Your task to perform on an android device: check android version Image 0: 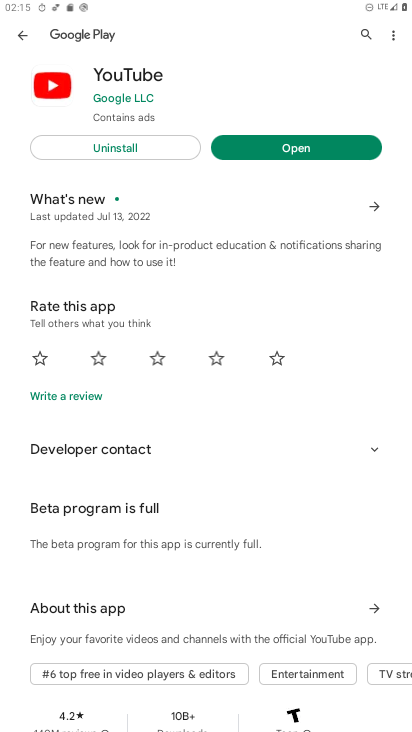
Step 0: press home button
Your task to perform on an android device: check android version Image 1: 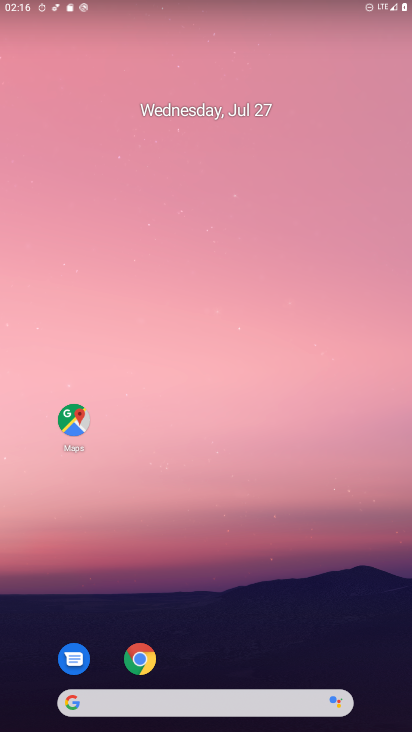
Step 1: drag from (241, 595) to (153, 68)
Your task to perform on an android device: check android version Image 2: 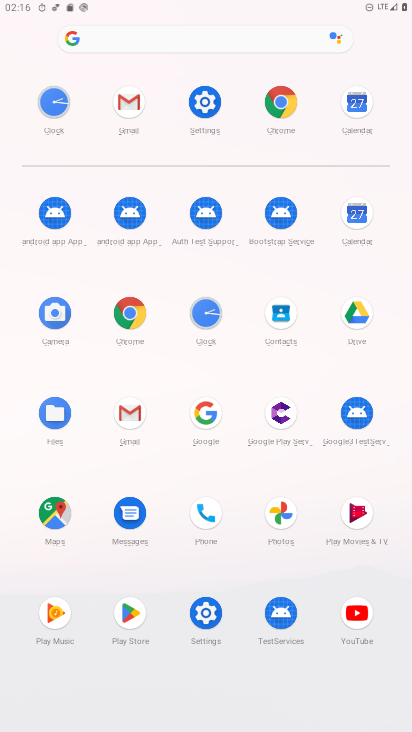
Step 2: click (204, 95)
Your task to perform on an android device: check android version Image 3: 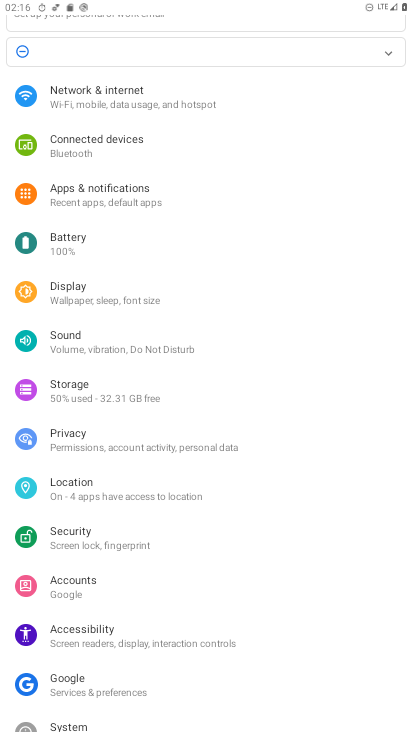
Step 3: drag from (332, 563) to (210, 1)
Your task to perform on an android device: check android version Image 4: 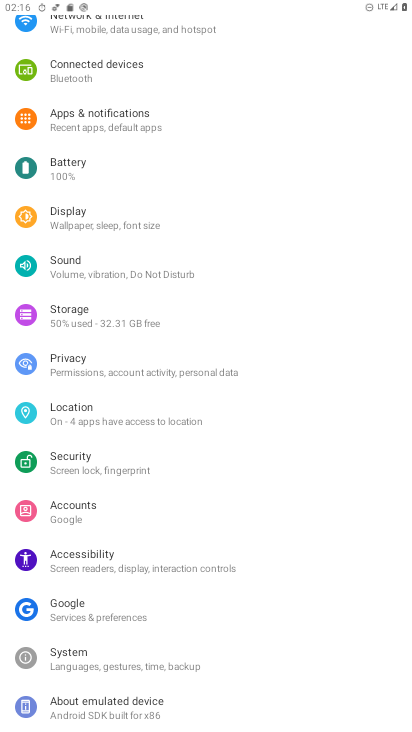
Step 4: click (106, 704)
Your task to perform on an android device: check android version Image 5: 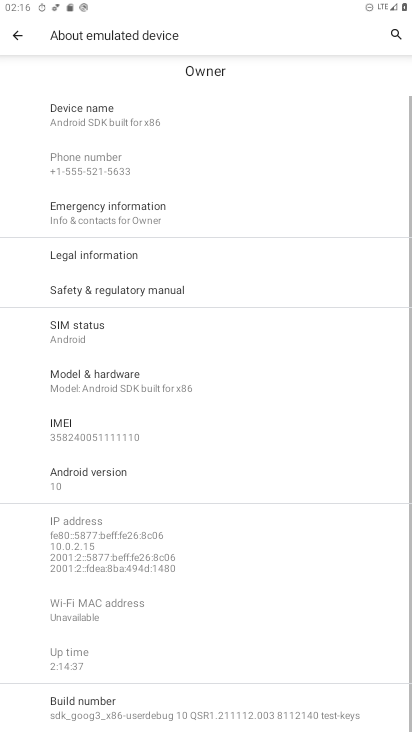
Step 5: click (78, 471)
Your task to perform on an android device: check android version Image 6: 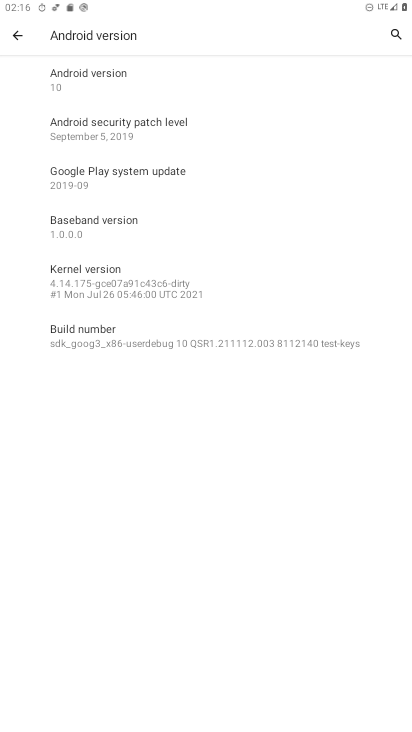
Step 6: click (156, 86)
Your task to perform on an android device: check android version Image 7: 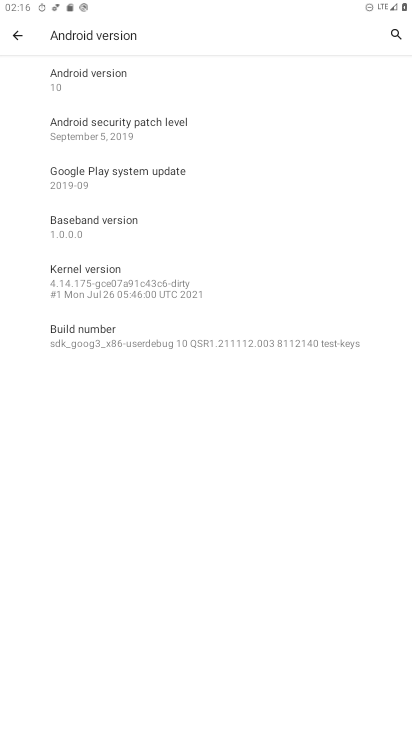
Step 7: task complete